Your task to perform on an android device: search for starred emails in the gmail app Image 0: 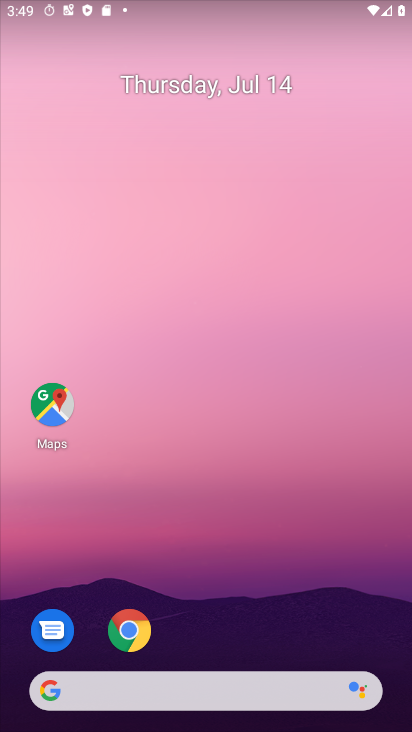
Step 0: drag from (198, 730) to (257, 118)
Your task to perform on an android device: search for starred emails in the gmail app Image 1: 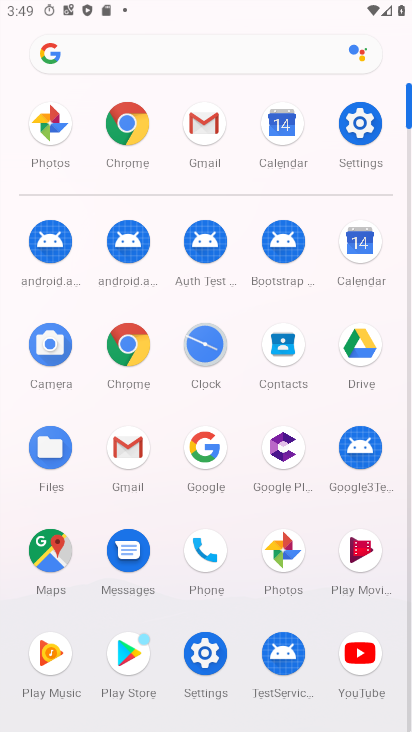
Step 1: click (131, 453)
Your task to perform on an android device: search for starred emails in the gmail app Image 2: 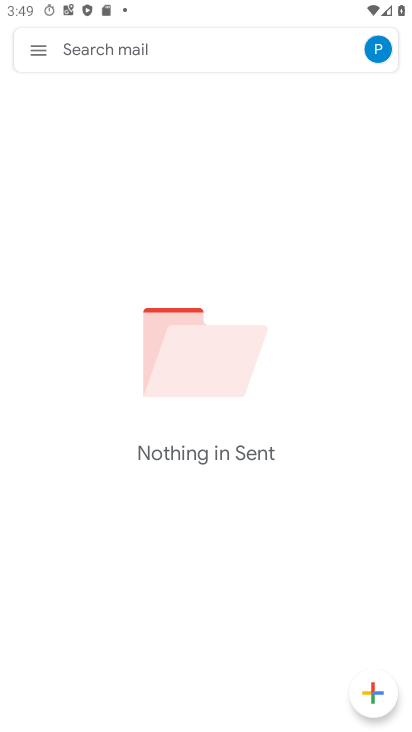
Step 2: click (38, 48)
Your task to perform on an android device: search for starred emails in the gmail app Image 3: 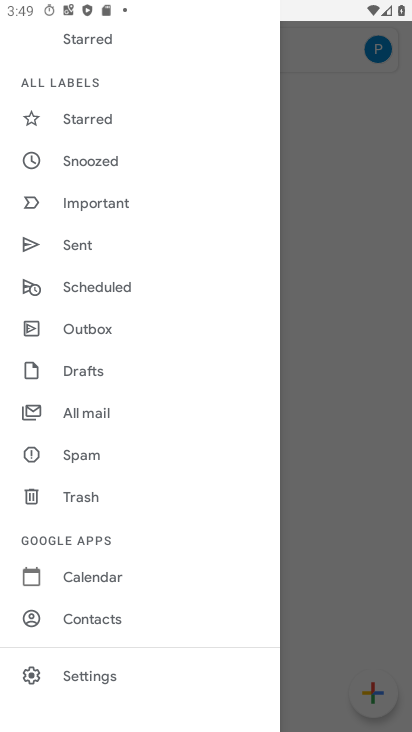
Step 3: click (89, 122)
Your task to perform on an android device: search for starred emails in the gmail app Image 4: 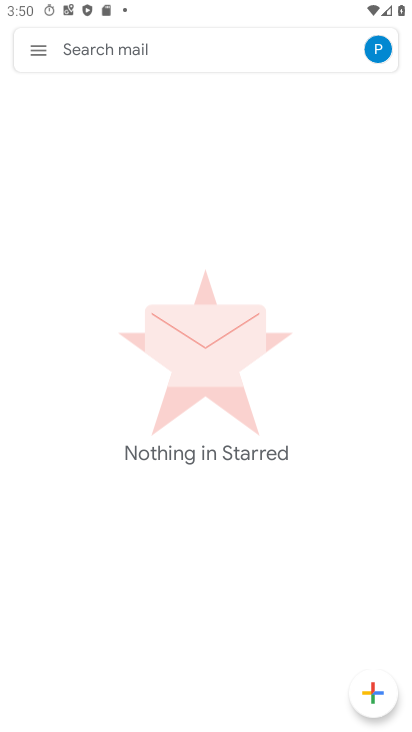
Step 4: task complete